Your task to perform on an android device: Do I have any events tomorrow? Image 0: 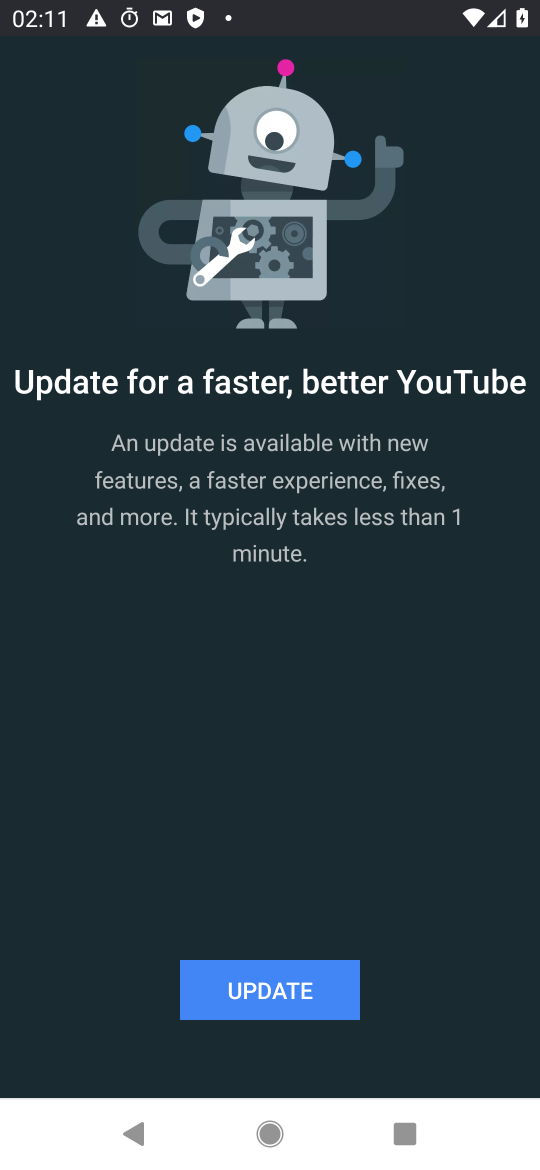
Step 0: press home button
Your task to perform on an android device: Do I have any events tomorrow? Image 1: 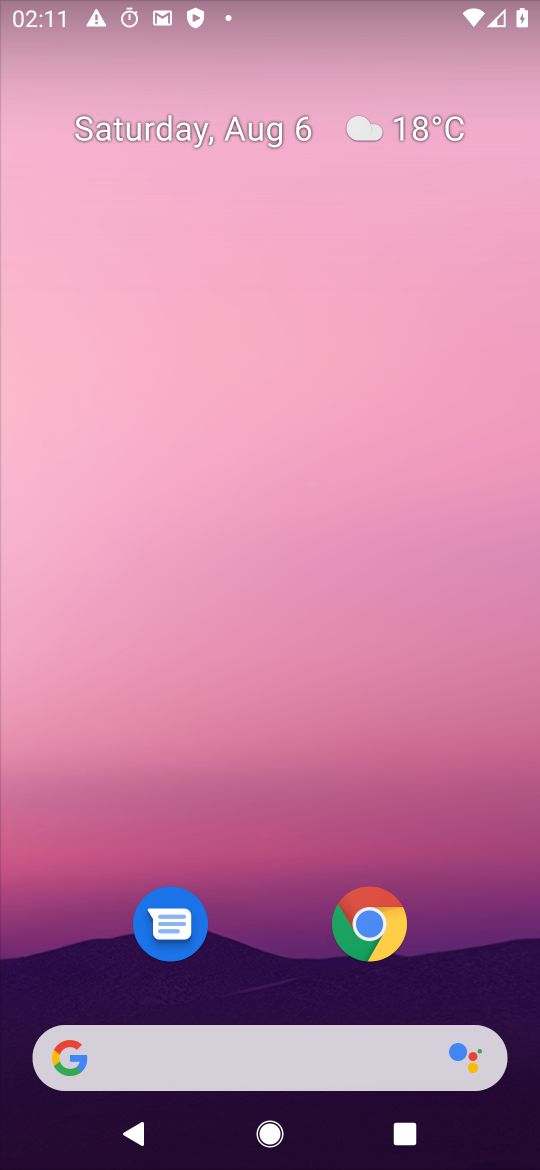
Step 1: drag from (225, 1045) to (177, 88)
Your task to perform on an android device: Do I have any events tomorrow? Image 2: 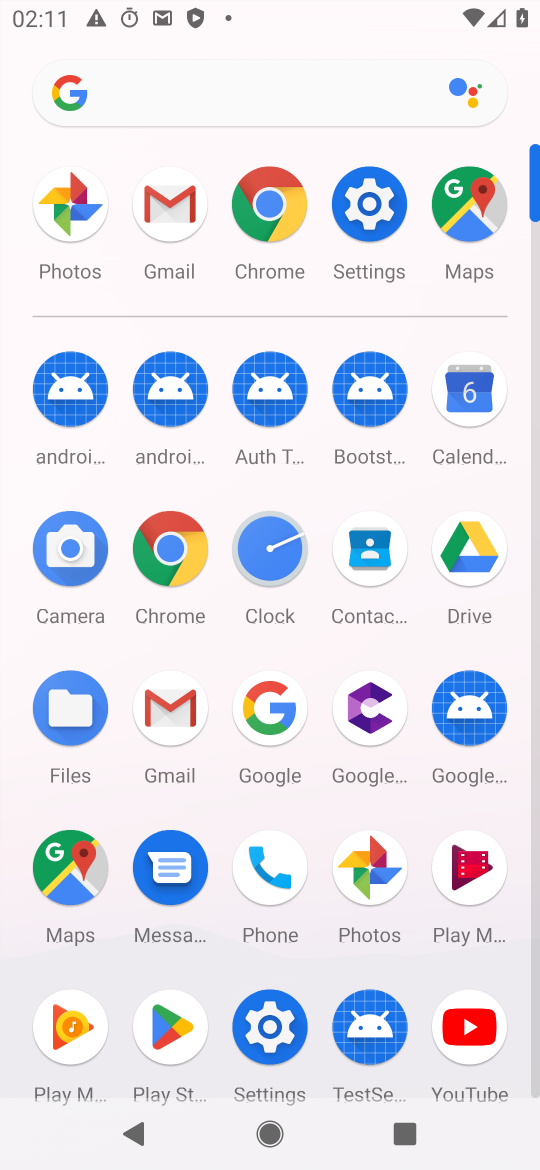
Step 2: click (468, 400)
Your task to perform on an android device: Do I have any events tomorrow? Image 3: 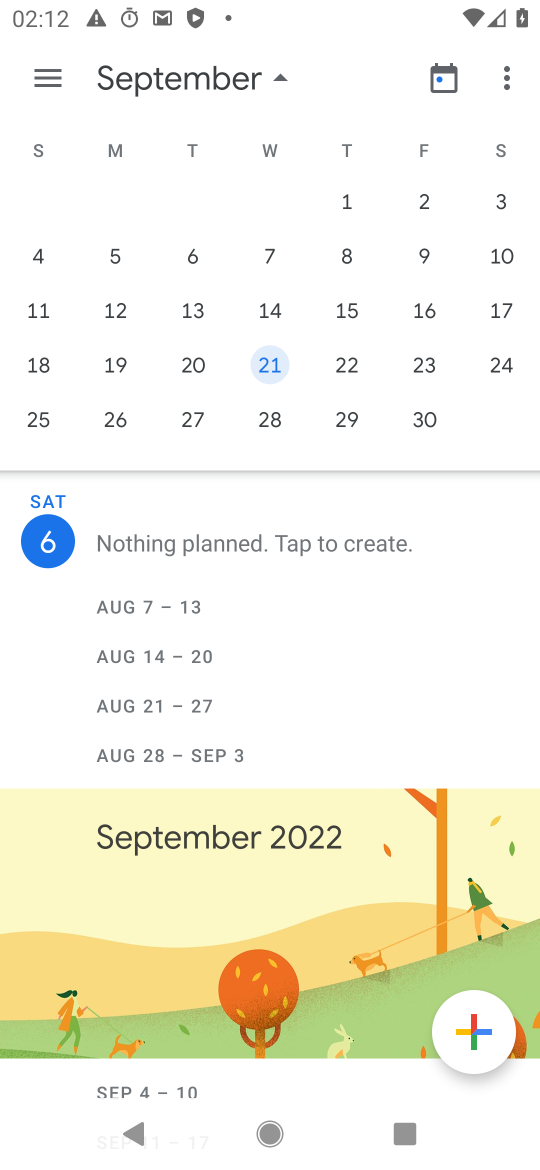
Step 3: drag from (45, 221) to (539, 255)
Your task to perform on an android device: Do I have any events tomorrow? Image 4: 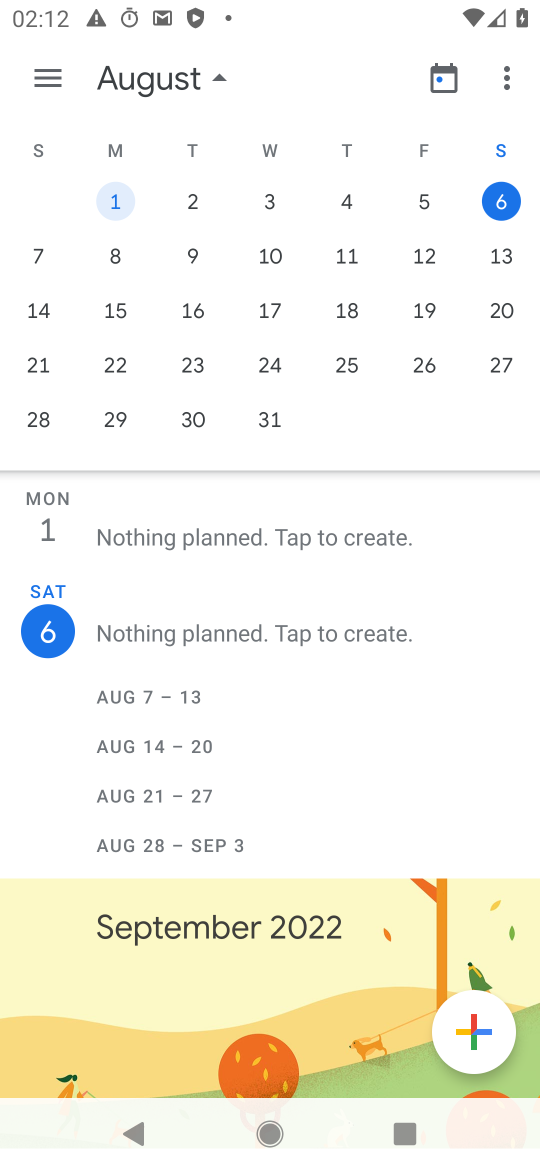
Step 4: click (45, 254)
Your task to perform on an android device: Do I have any events tomorrow? Image 5: 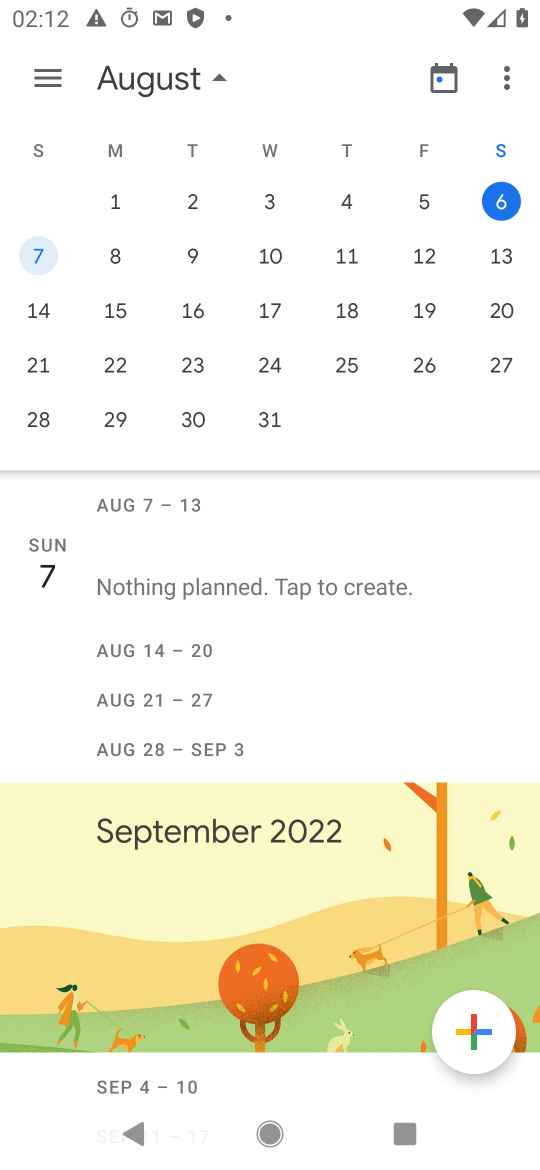
Step 5: task complete